Your task to perform on an android device: open app "Yahoo Mail" Image 0: 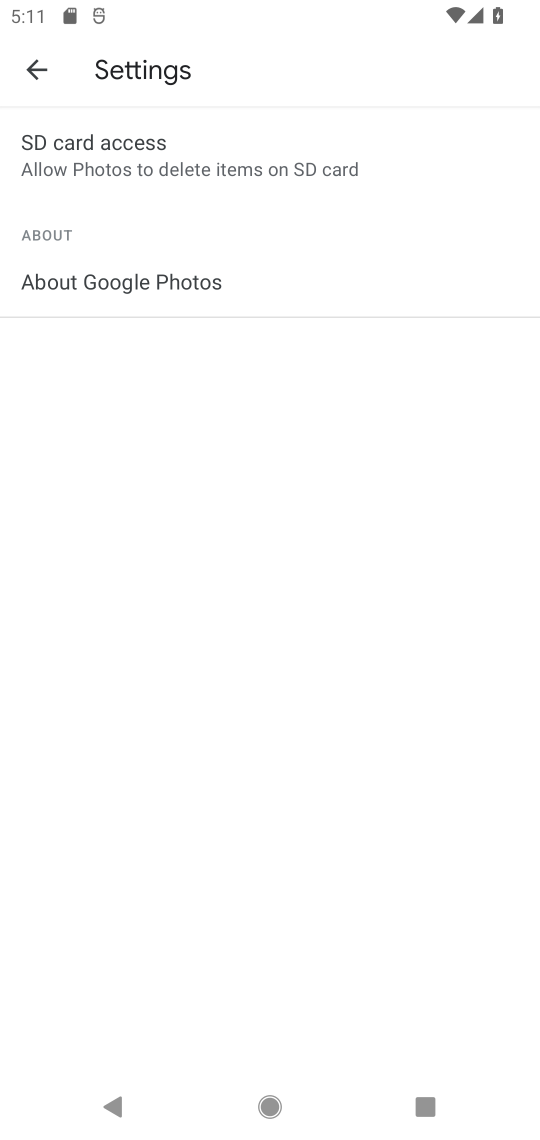
Step 0: press home button
Your task to perform on an android device: open app "Yahoo Mail" Image 1: 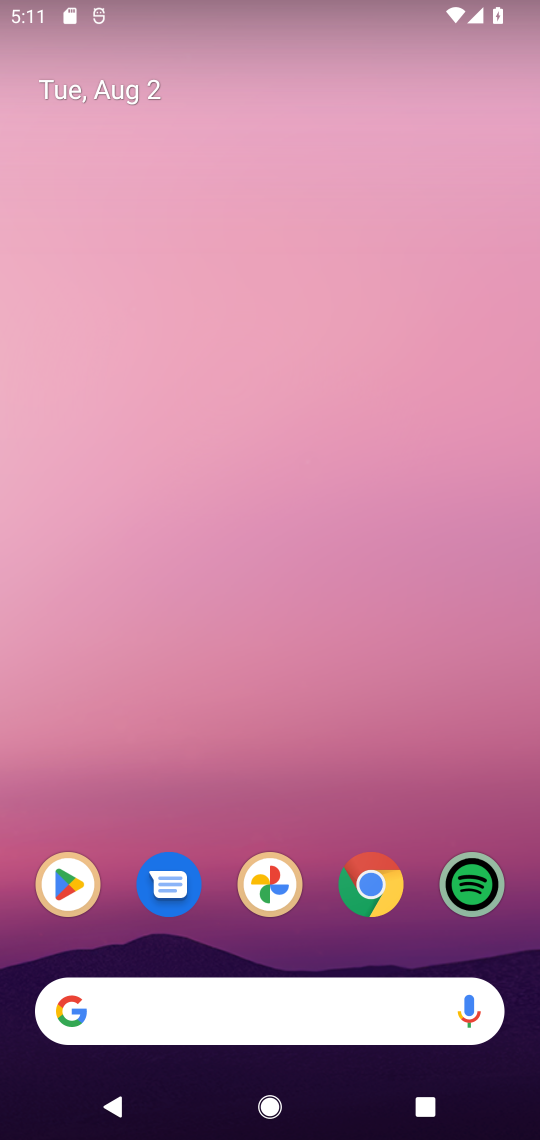
Step 1: drag from (307, 862) to (266, 20)
Your task to perform on an android device: open app "Yahoo Mail" Image 2: 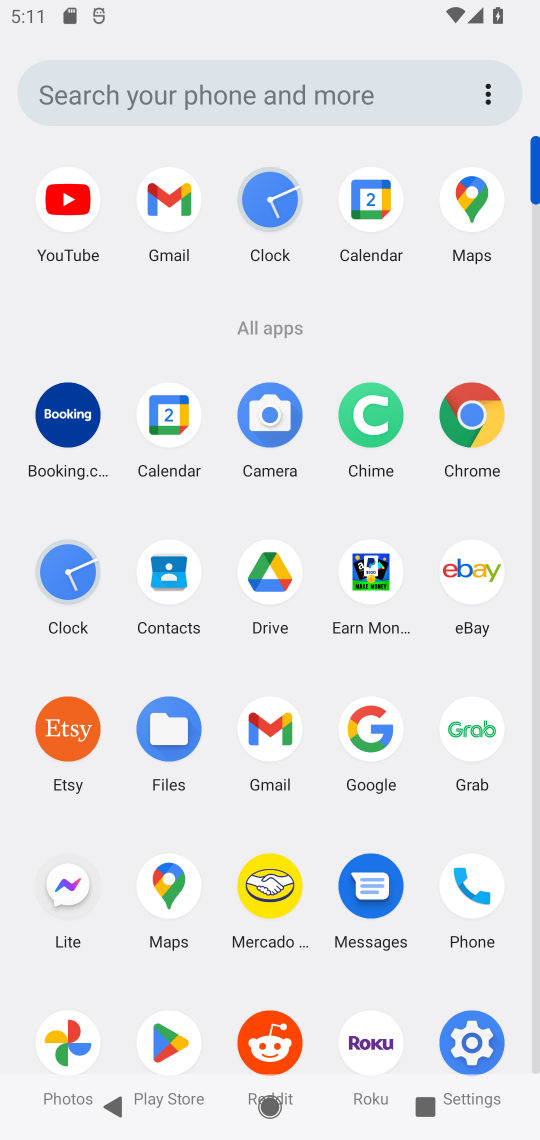
Step 2: click (170, 1043)
Your task to perform on an android device: open app "Yahoo Mail" Image 3: 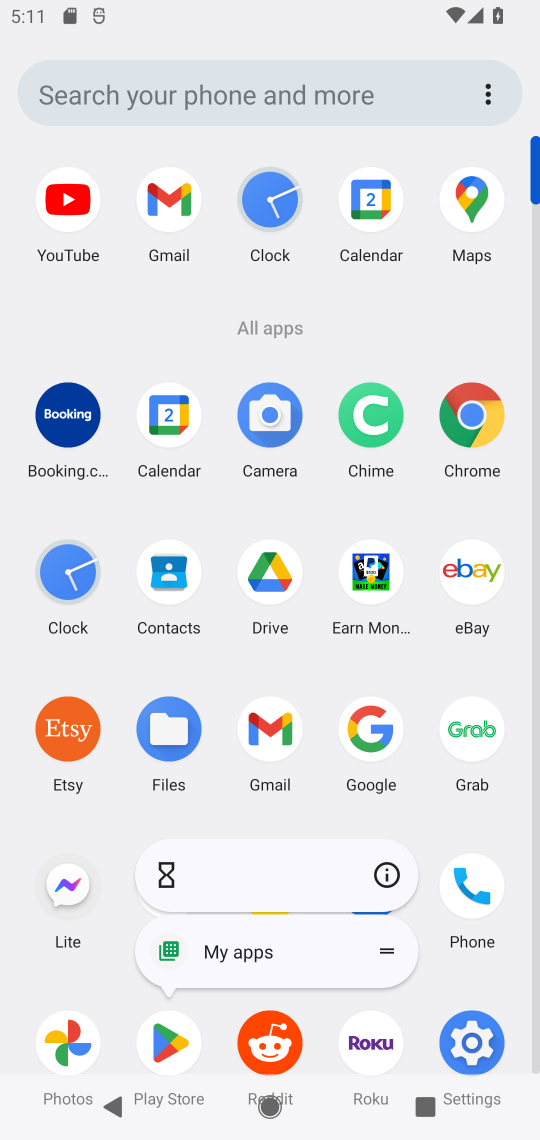
Step 3: click (170, 1043)
Your task to perform on an android device: open app "Yahoo Mail" Image 4: 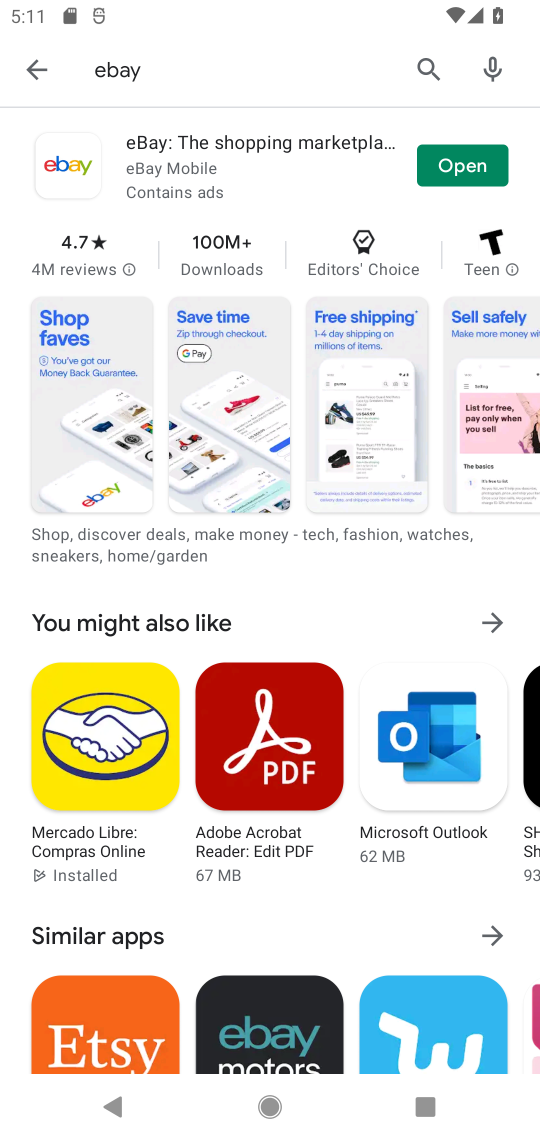
Step 4: click (44, 70)
Your task to perform on an android device: open app "Yahoo Mail" Image 5: 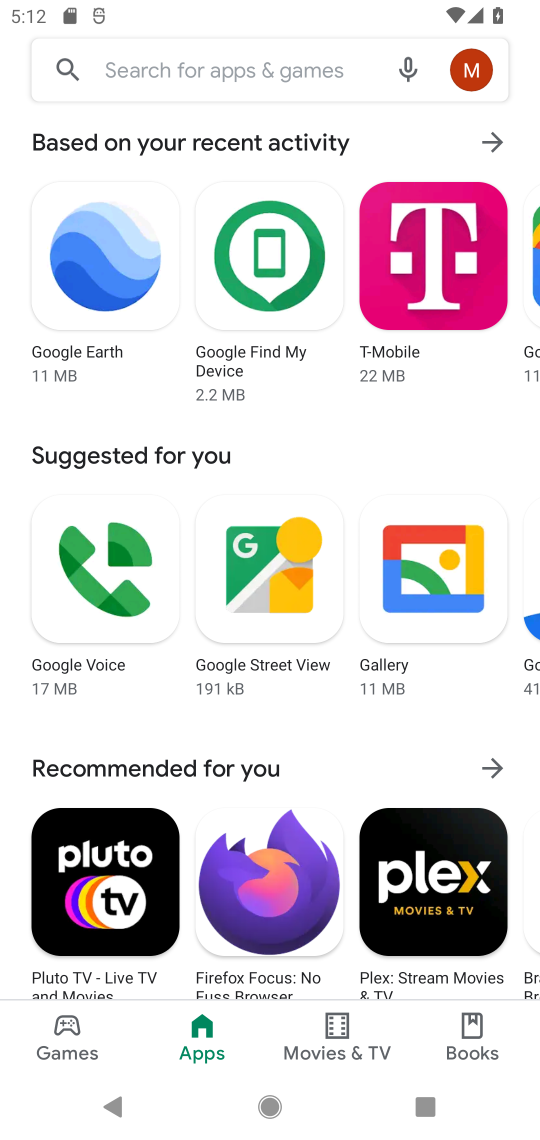
Step 5: click (95, 71)
Your task to perform on an android device: open app "Yahoo Mail" Image 6: 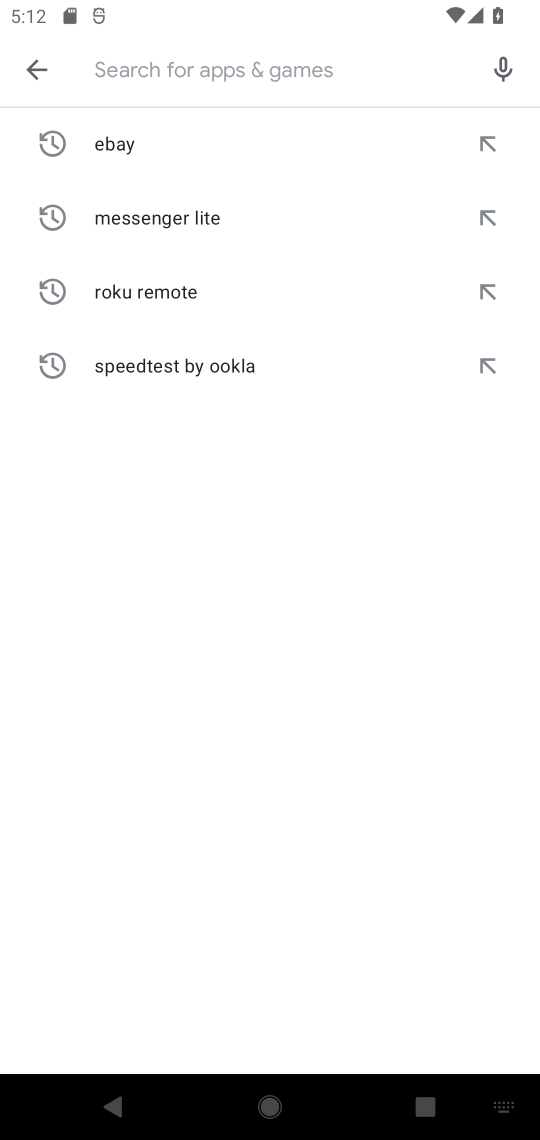
Step 6: type "Yahoo Mail"
Your task to perform on an android device: open app "Yahoo Mail" Image 7: 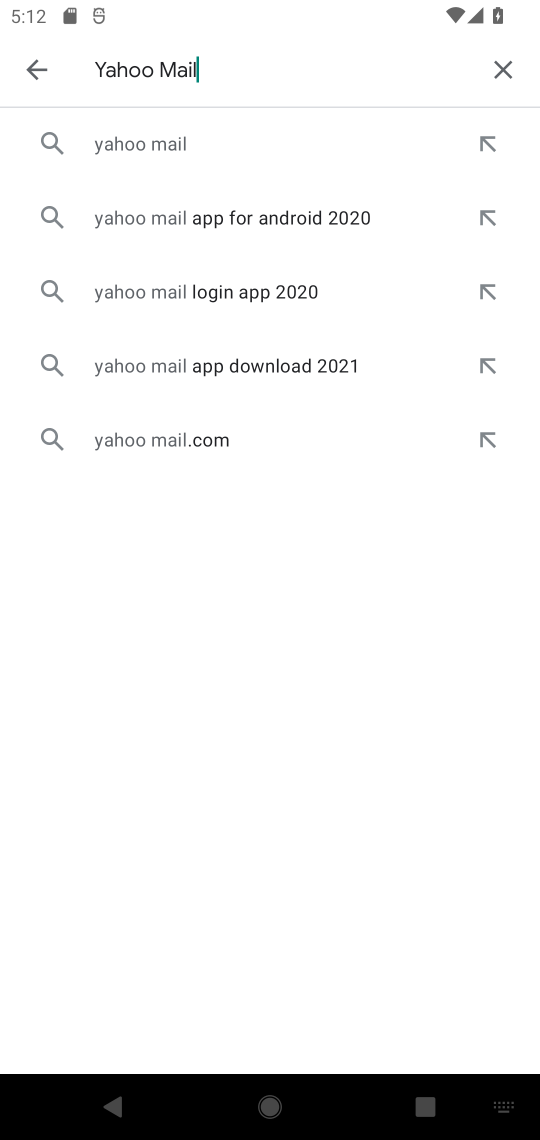
Step 7: click (164, 143)
Your task to perform on an android device: open app "Yahoo Mail" Image 8: 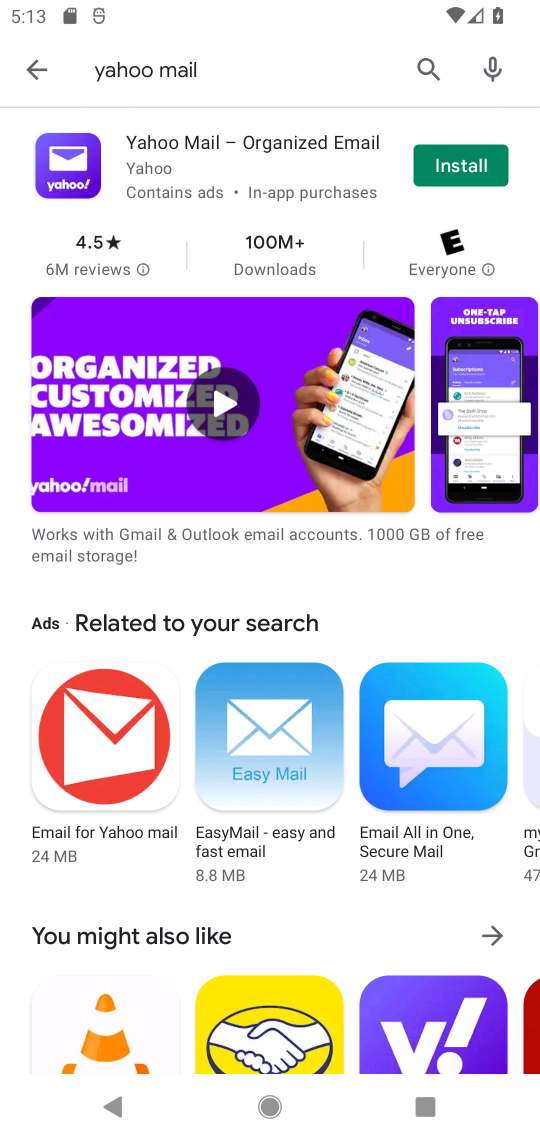
Step 8: task complete